Your task to perform on an android device: Search for Italian restaurants on Maps Image 0: 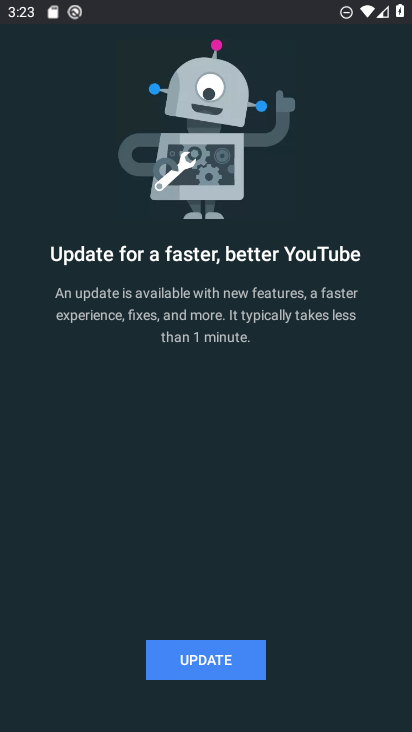
Step 0: press home button
Your task to perform on an android device: Search for Italian restaurants on Maps Image 1: 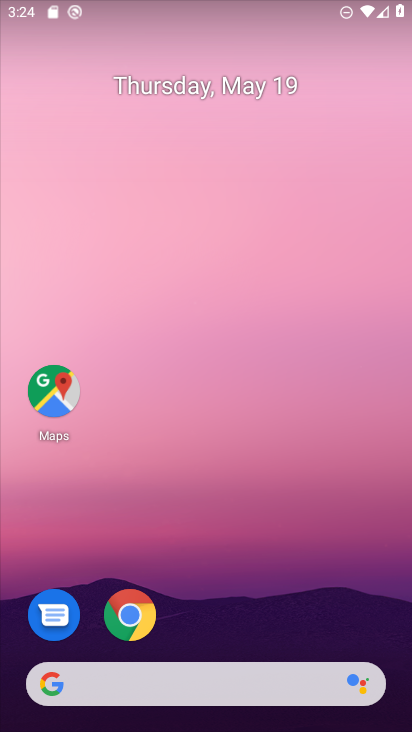
Step 1: click (51, 385)
Your task to perform on an android device: Search for Italian restaurants on Maps Image 2: 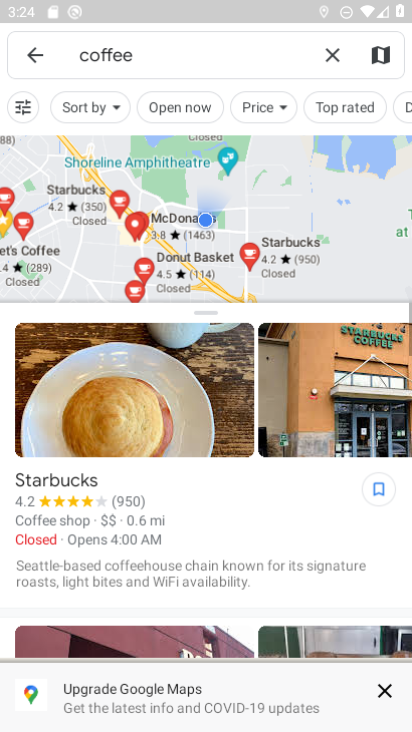
Step 2: click (321, 54)
Your task to perform on an android device: Search for Italian restaurants on Maps Image 3: 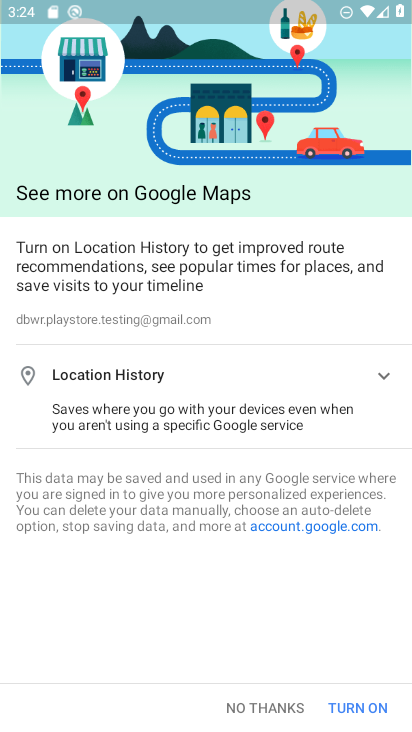
Step 3: click (240, 706)
Your task to perform on an android device: Search for Italian restaurants on Maps Image 4: 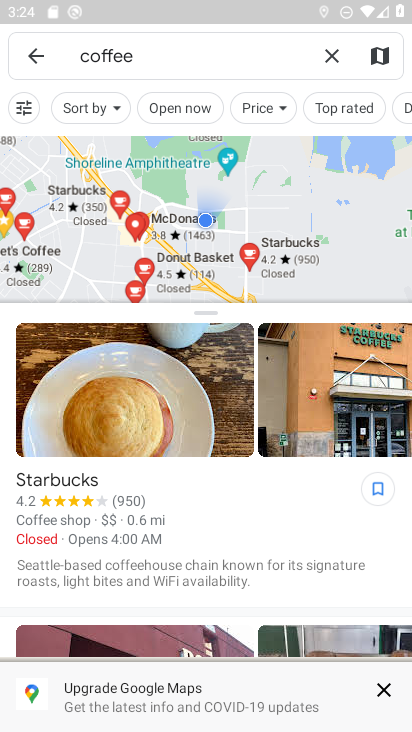
Step 4: click (333, 49)
Your task to perform on an android device: Search for Italian restaurants on Maps Image 5: 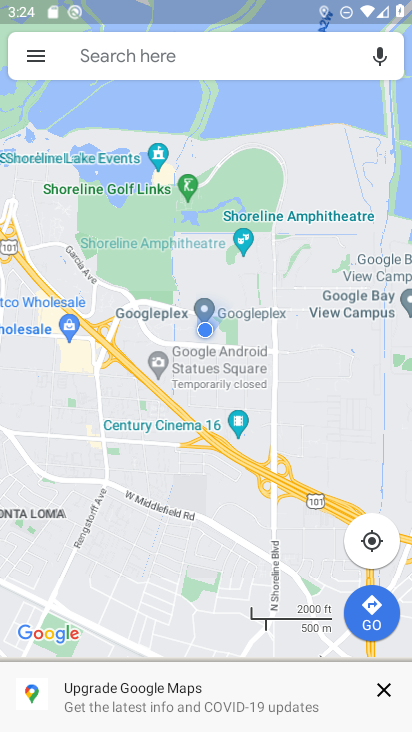
Step 5: click (197, 53)
Your task to perform on an android device: Search for Italian restaurants on Maps Image 6: 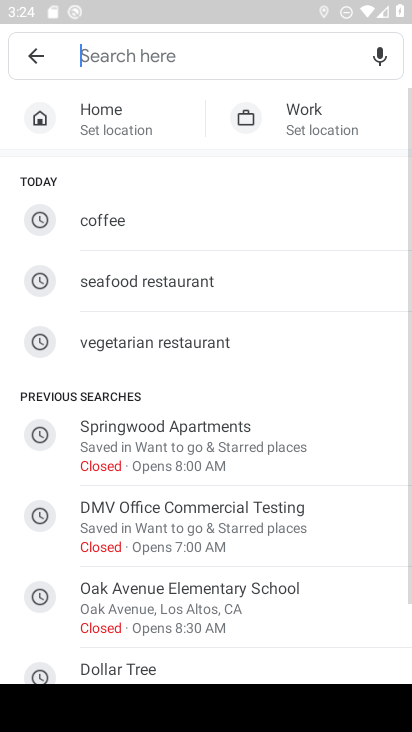
Step 6: type " Italian restaurants"
Your task to perform on an android device: Search for Italian restaurants on Maps Image 7: 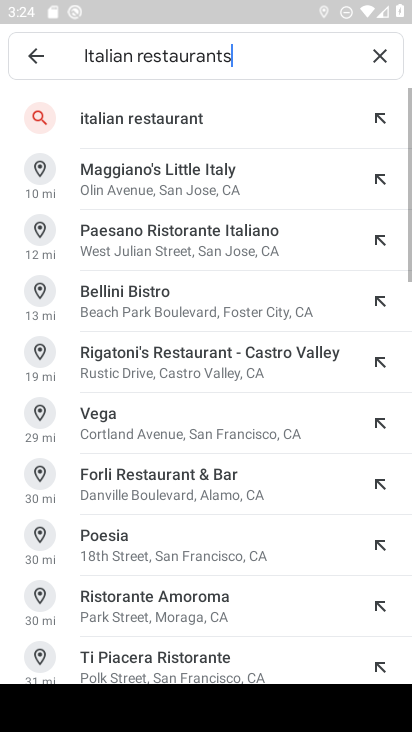
Step 7: click (128, 116)
Your task to perform on an android device: Search for Italian restaurants on Maps Image 8: 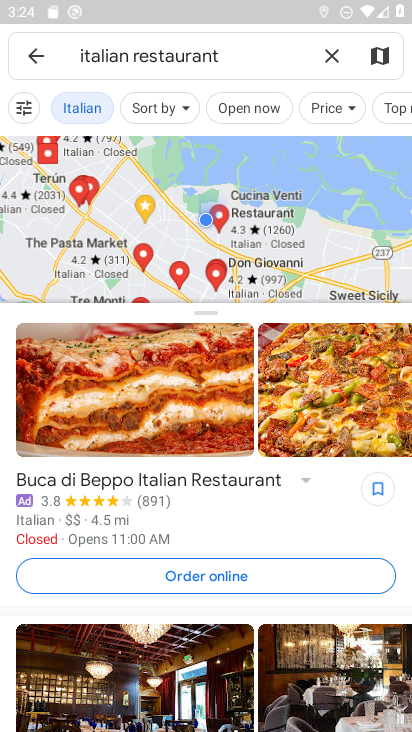
Step 8: task complete